Your task to perform on an android device: change the upload size in google photos Image 0: 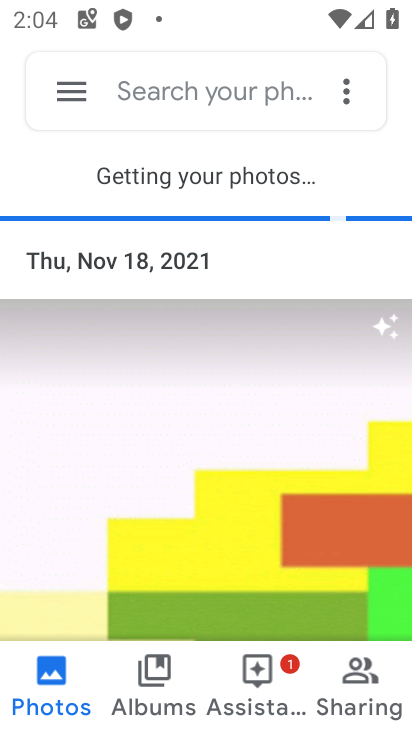
Step 0: click (96, 106)
Your task to perform on an android device: change the upload size in google photos Image 1: 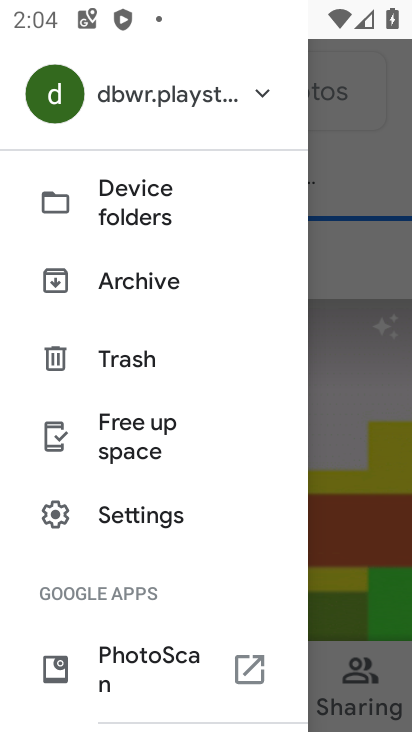
Step 1: drag from (131, 562) to (196, 254)
Your task to perform on an android device: change the upload size in google photos Image 2: 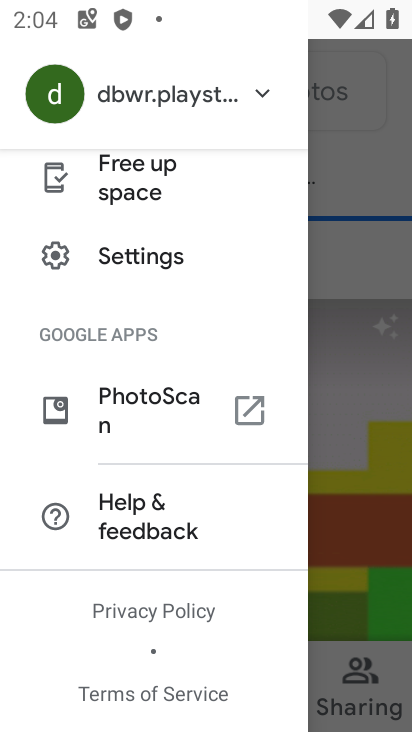
Step 2: click (191, 271)
Your task to perform on an android device: change the upload size in google photos Image 3: 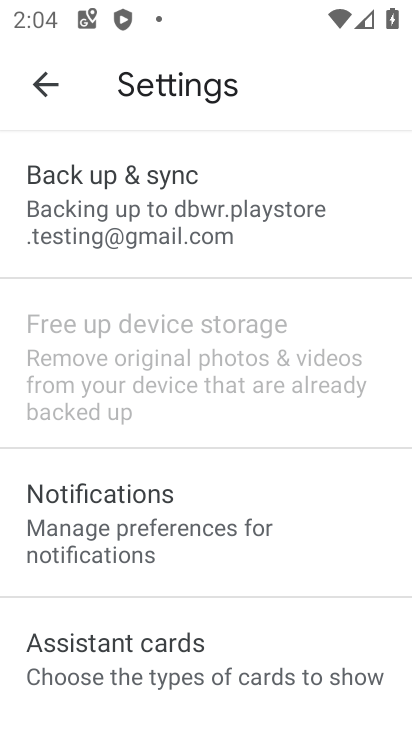
Step 3: click (221, 217)
Your task to perform on an android device: change the upload size in google photos Image 4: 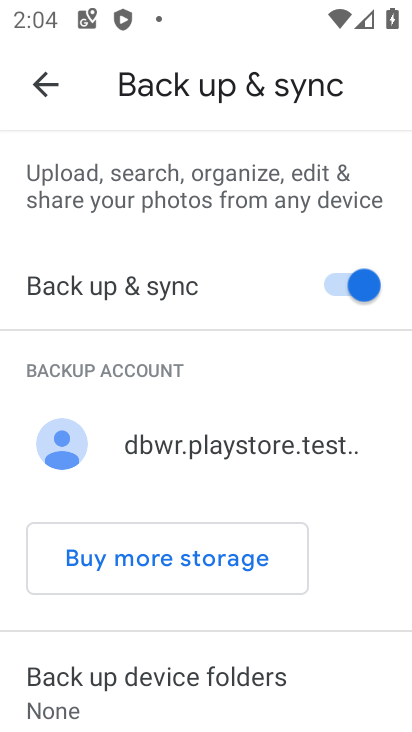
Step 4: drag from (143, 693) to (255, 206)
Your task to perform on an android device: change the upload size in google photos Image 5: 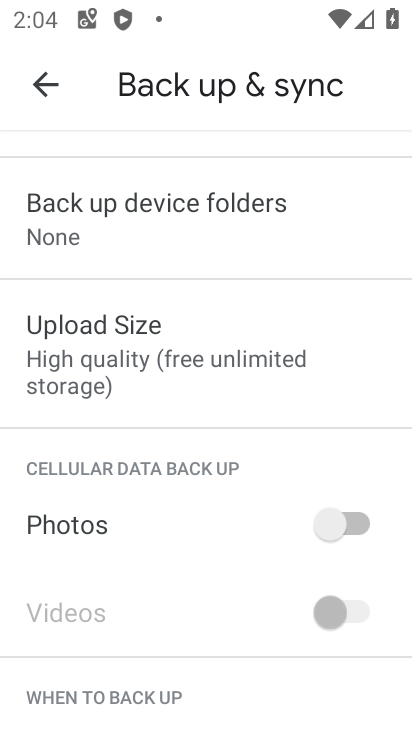
Step 5: click (235, 338)
Your task to perform on an android device: change the upload size in google photos Image 6: 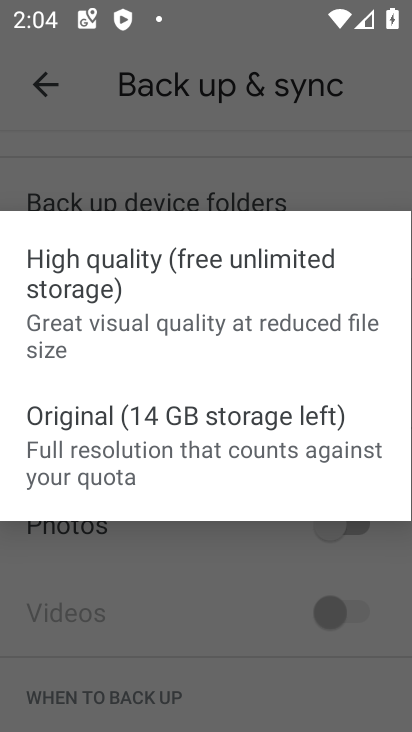
Step 6: click (232, 432)
Your task to perform on an android device: change the upload size in google photos Image 7: 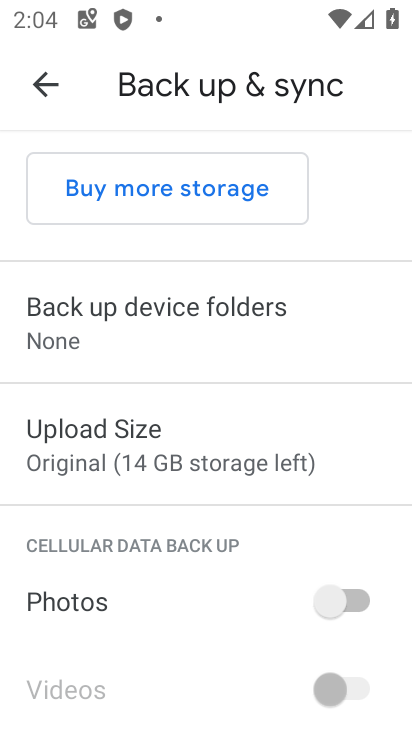
Step 7: task complete